Your task to perform on an android device: Go to accessibility settings Image 0: 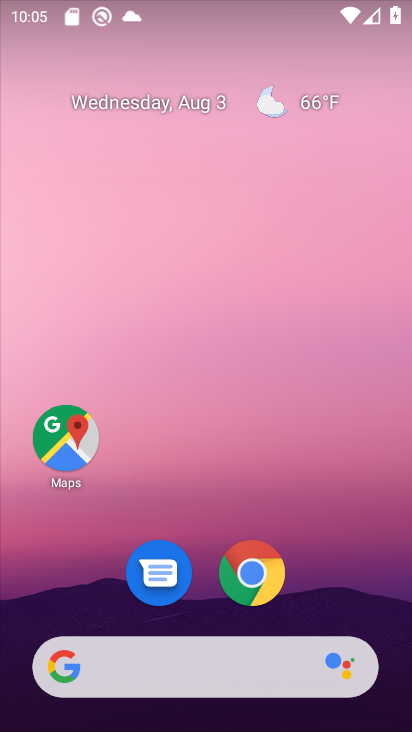
Step 0: drag from (228, 687) to (125, 137)
Your task to perform on an android device: Go to accessibility settings Image 1: 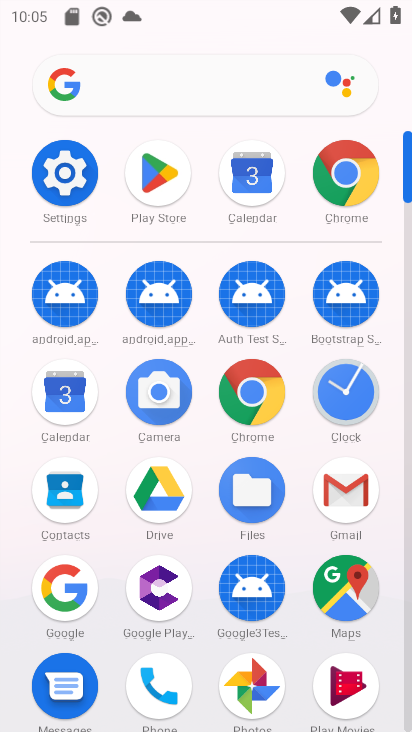
Step 1: click (57, 159)
Your task to perform on an android device: Go to accessibility settings Image 2: 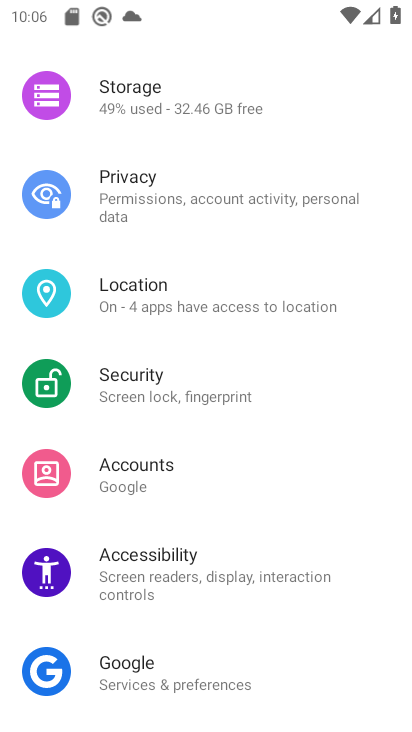
Step 2: click (211, 568)
Your task to perform on an android device: Go to accessibility settings Image 3: 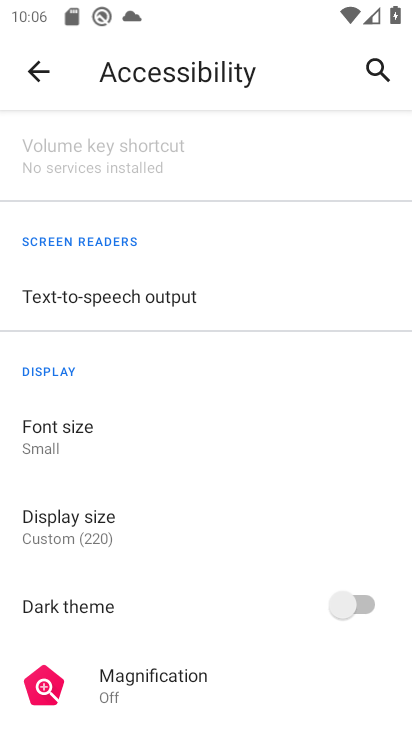
Step 3: task complete